Your task to perform on an android device: toggle improve location accuracy Image 0: 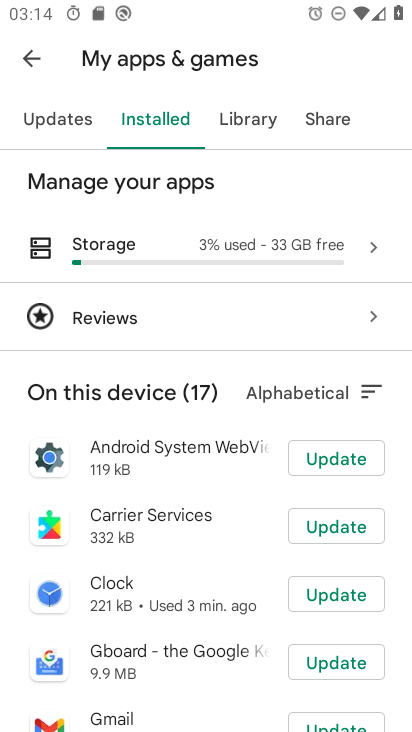
Step 0: press home button
Your task to perform on an android device: toggle improve location accuracy Image 1: 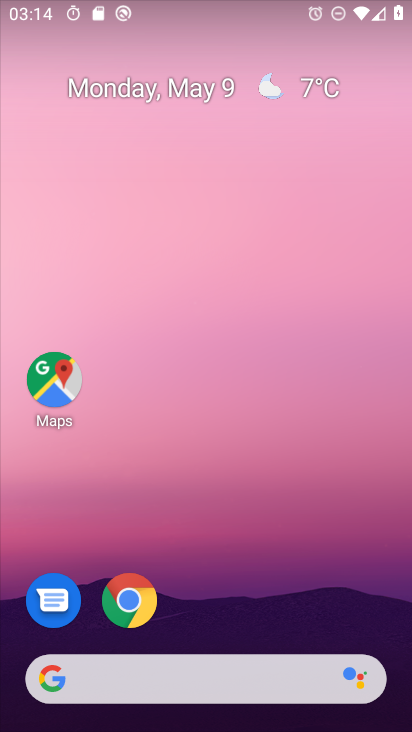
Step 1: drag from (172, 664) to (192, 2)
Your task to perform on an android device: toggle improve location accuracy Image 2: 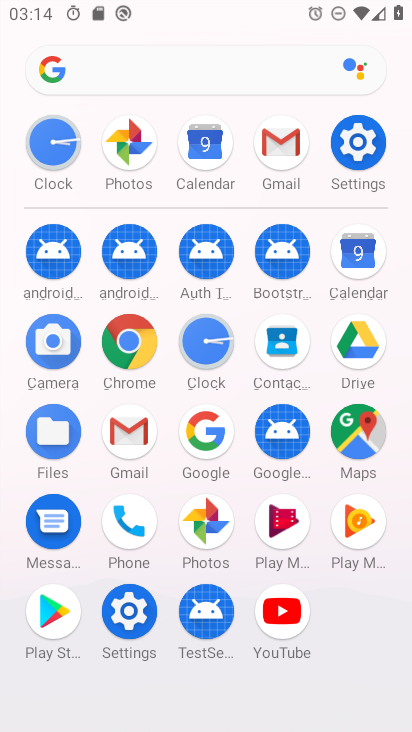
Step 2: click (342, 162)
Your task to perform on an android device: toggle improve location accuracy Image 3: 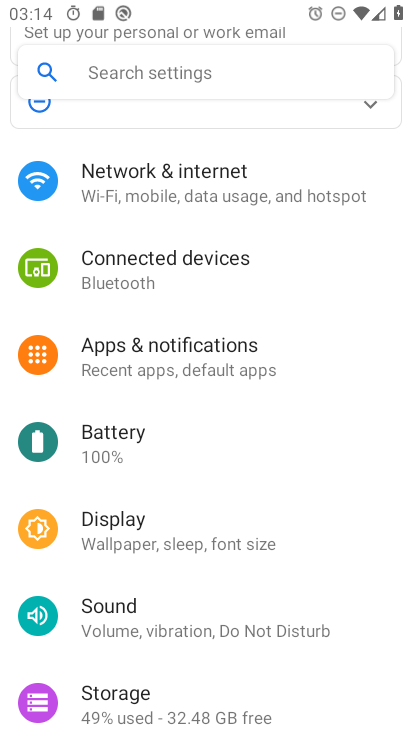
Step 3: drag from (157, 650) to (180, 316)
Your task to perform on an android device: toggle improve location accuracy Image 4: 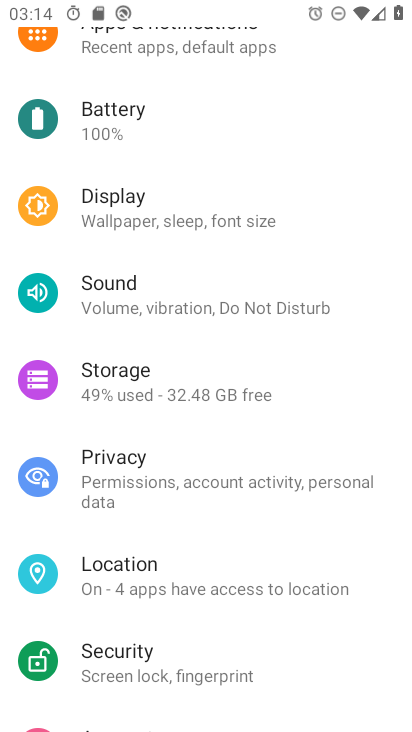
Step 4: click (152, 568)
Your task to perform on an android device: toggle improve location accuracy Image 5: 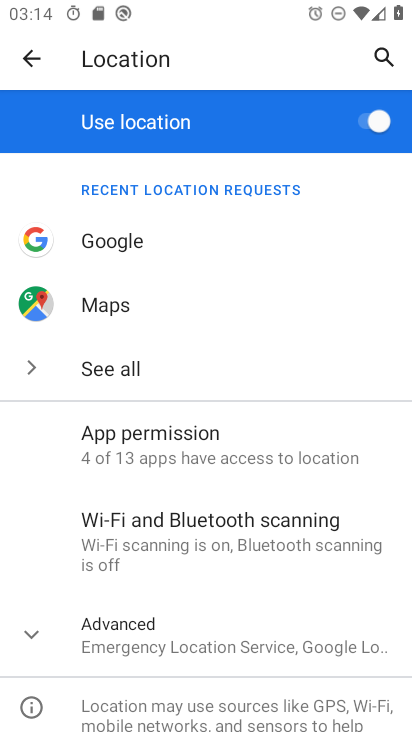
Step 5: click (178, 632)
Your task to perform on an android device: toggle improve location accuracy Image 6: 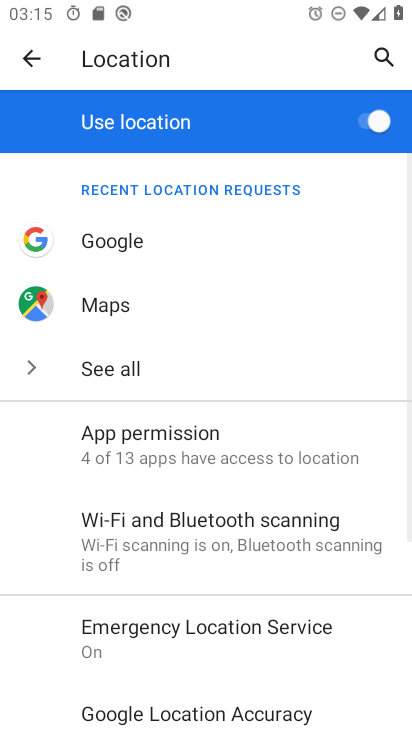
Step 6: drag from (219, 598) to (244, 356)
Your task to perform on an android device: toggle improve location accuracy Image 7: 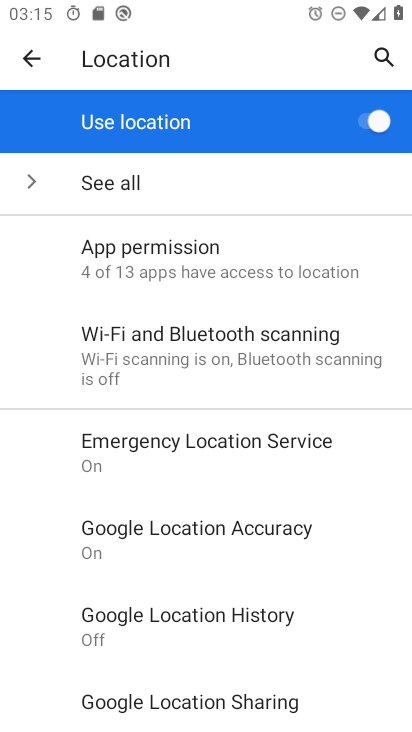
Step 7: click (208, 535)
Your task to perform on an android device: toggle improve location accuracy Image 8: 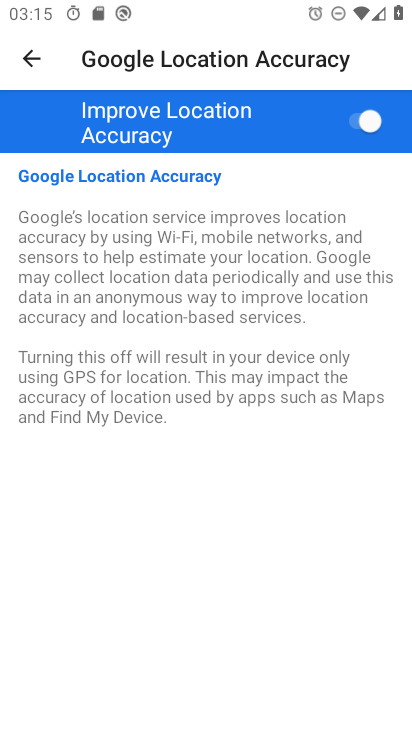
Step 8: click (354, 100)
Your task to perform on an android device: toggle improve location accuracy Image 9: 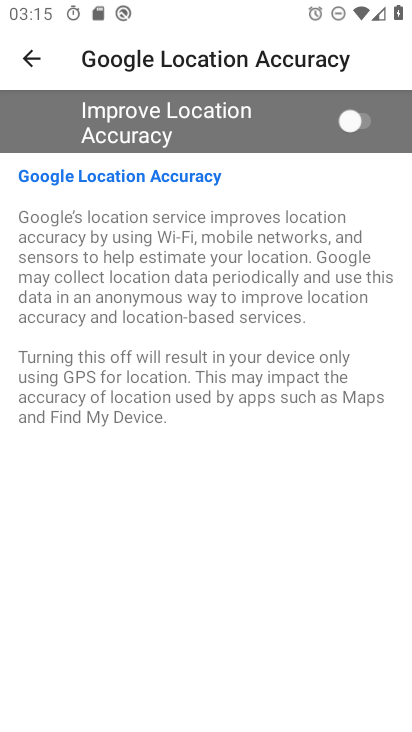
Step 9: task complete